Your task to perform on an android device: turn on notifications settings in the gmail app Image 0: 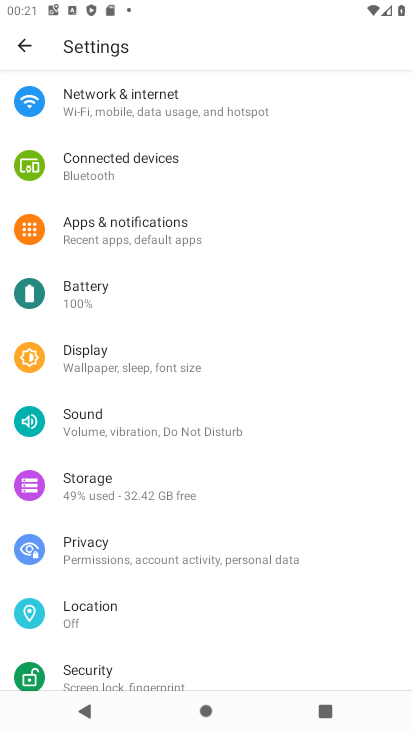
Step 0: click (178, 254)
Your task to perform on an android device: turn on notifications settings in the gmail app Image 1: 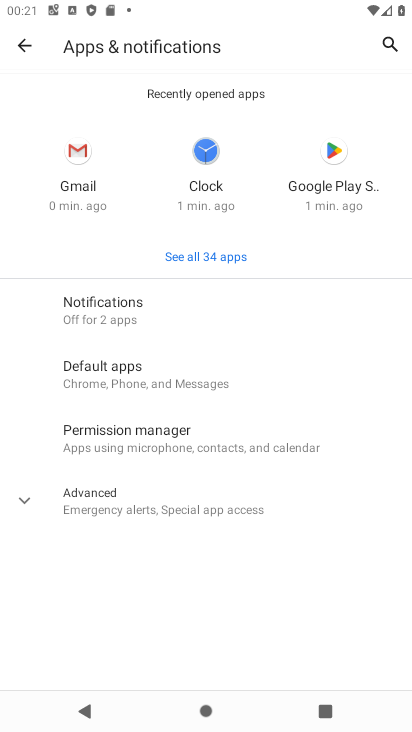
Step 1: click (92, 179)
Your task to perform on an android device: turn on notifications settings in the gmail app Image 2: 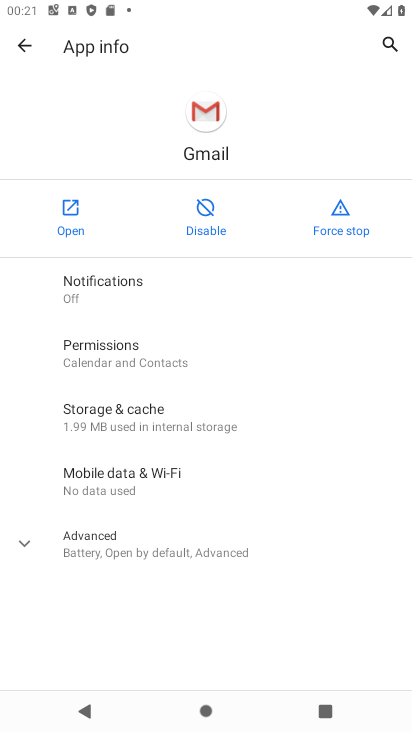
Step 2: click (160, 294)
Your task to perform on an android device: turn on notifications settings in the gmail app Image 3: 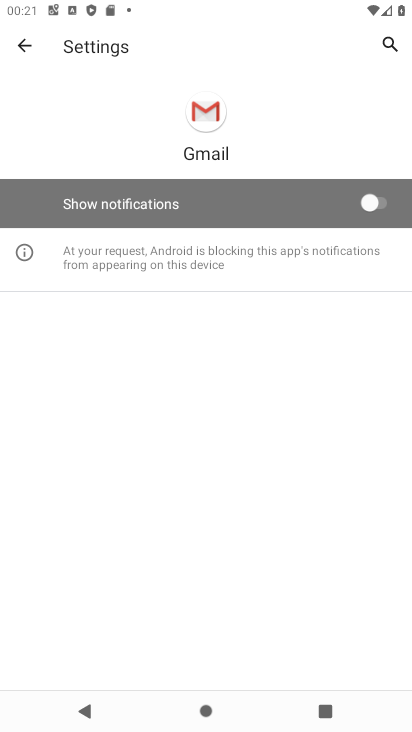
Step 3: click (392, 201)
Your task to perform on an android device: turn on notifications settings in the gmail app Image 4: 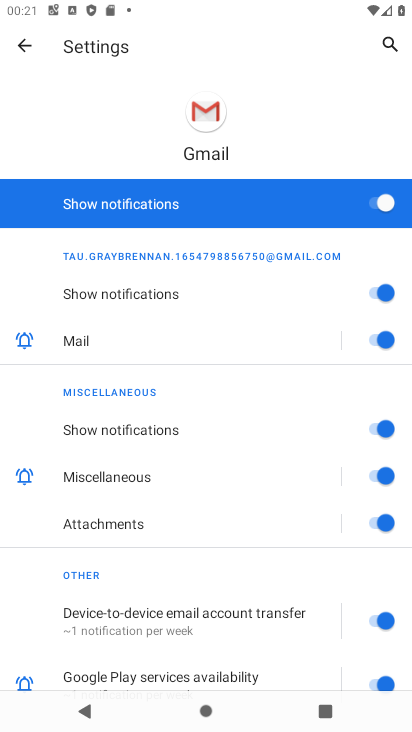
Step 4: task complete